Your task to perform on an android device: Go to ESPN.com Image 0: 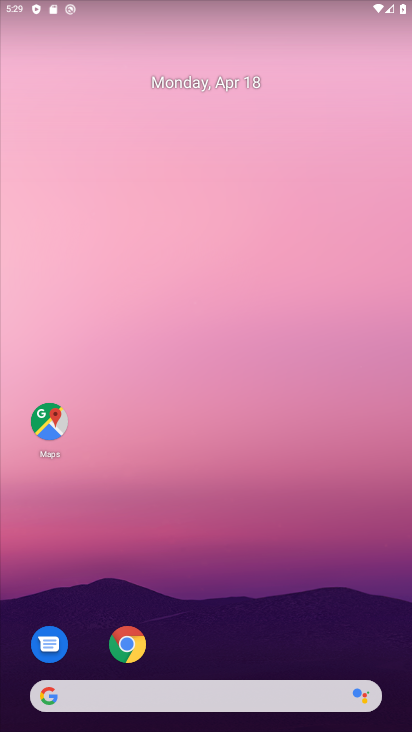
Step 0: click (127, 636)
Your task to perform on an android device: Go to ESPN.com Image 1: 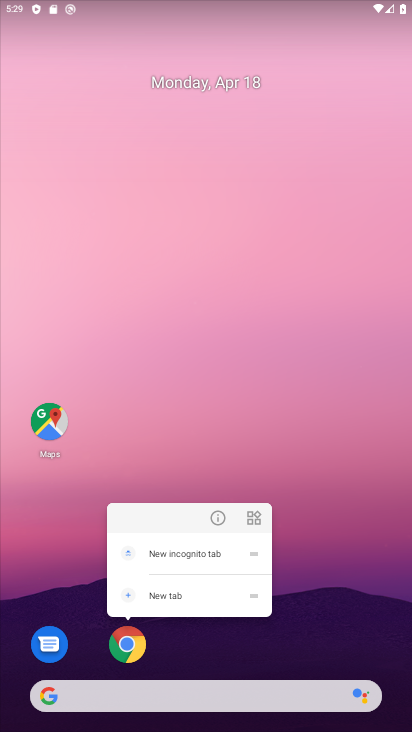
Step 1: click (123, 640)
Your task to perform on an android device: Go to ESPN.com Image 2: 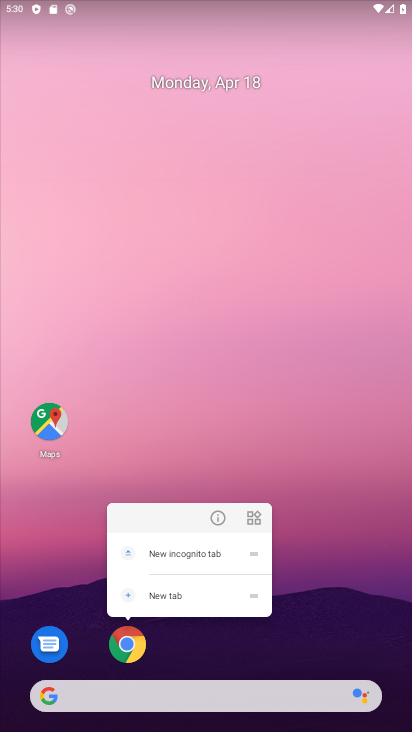
Step 2: click (126, 641)
Your task to perform on an android device: Go to ESPN.com Image 3: 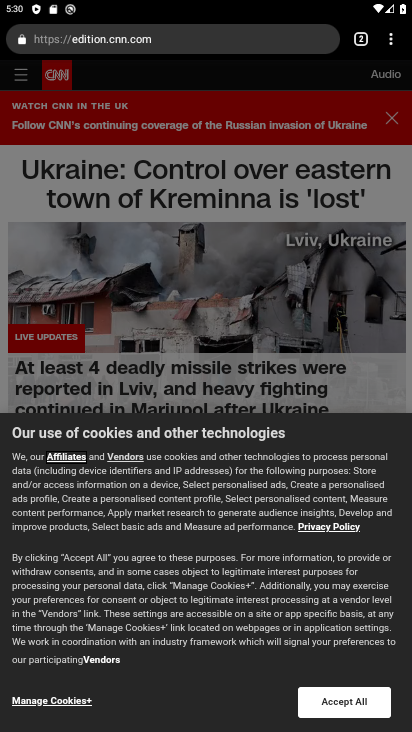
Step 3: click (354, 39)
Your task to perform on an android device: Go to ESPN.com Image 4: 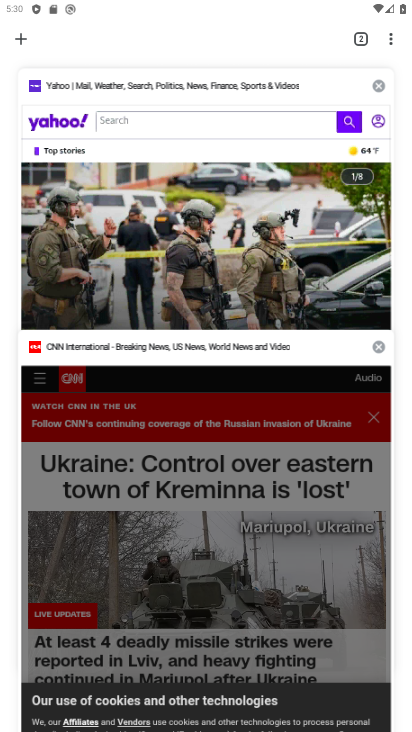
Step 4: click (18, 41)
Your task to perform on an android device: Go to ESPN.com Image 5: 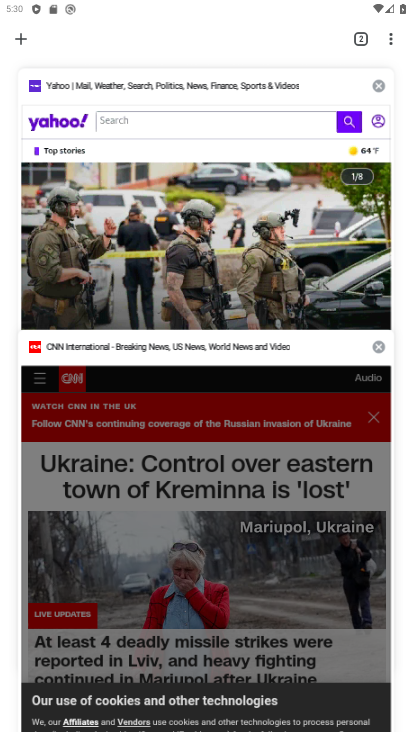
Step 5: click (13, 37)
Your task to perform on an android device: Go to ESPN.com Image 6: 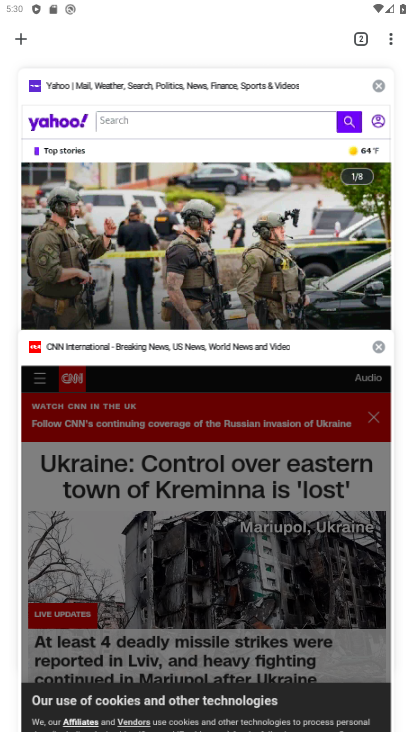
Step 6: click (19, 40)
Your task to perform on an android device: Go to ESPN.com Image 7: 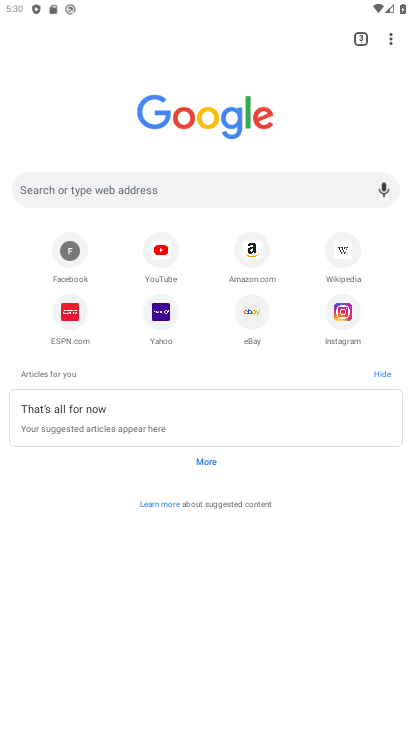
Step 7: click (69, 313)
Your task to perform on an android device: Go to ESPN.com Image 8: 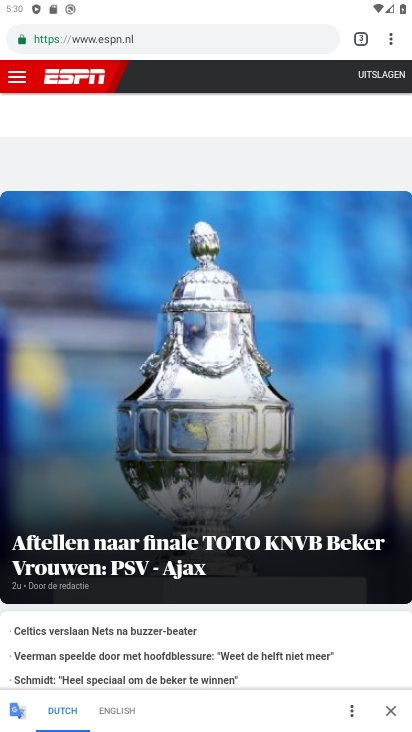
Step 8: task complete